Your task to perform on an android device: Turn off the flashlight Image 0: 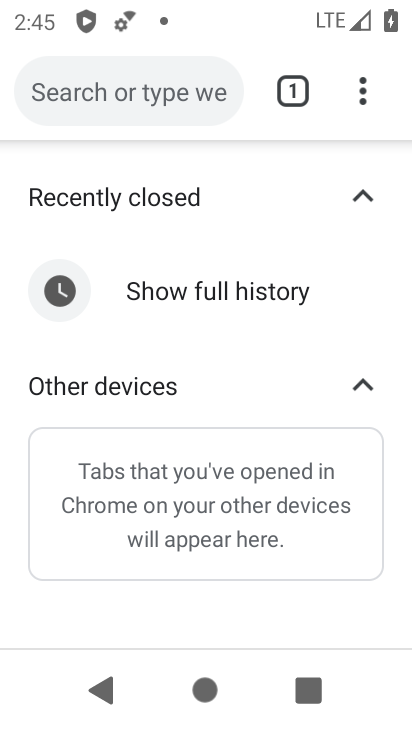
Step 0: press back button
Your task to perform on an android device: Turn off the flashlight Image 1: 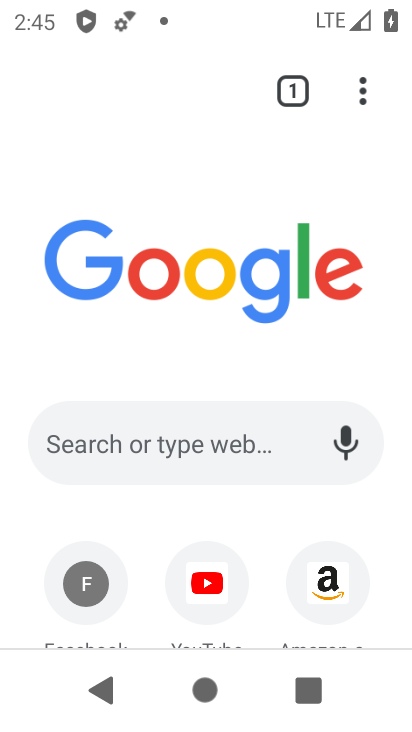
Step 1: press back button
Your task to perform on an android device: Turn off the flashlight Image 2: 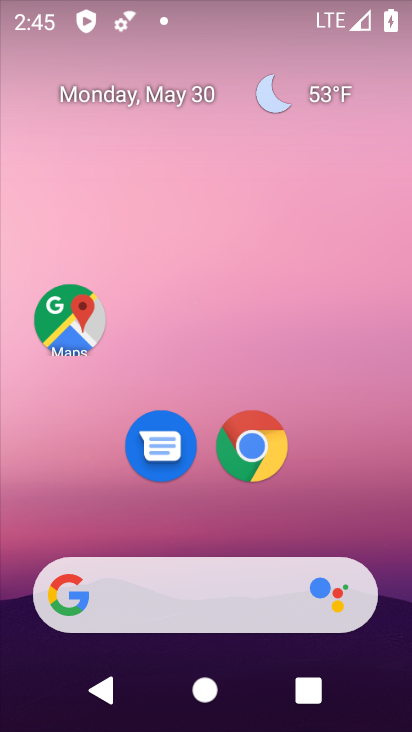
Step 2: drag from (303, 513) to (215, 48)
Your task to perform on an android device: Turn off the flashlight Image 3: 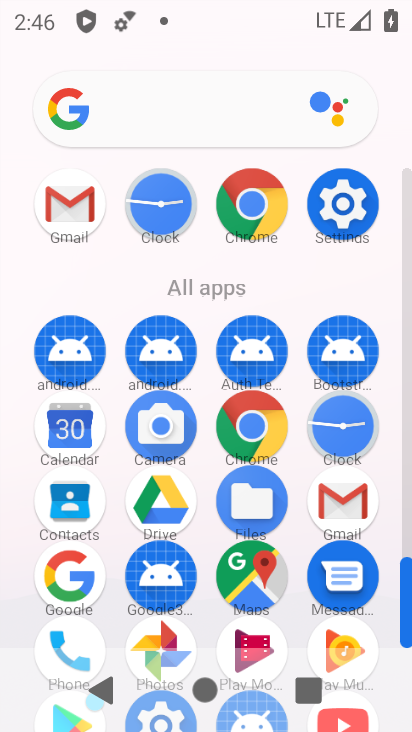
Step 3: click (342, 206)
Your task to perform on an android device: Turn off the flashlight Image 4: 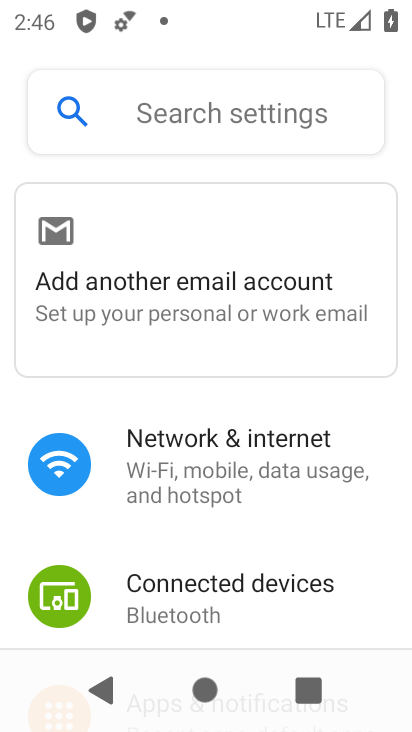
Step 4: drag from (171, 546) to (192, 435)
Your task to perform on an android device: Turn off the flashlight Image 5: 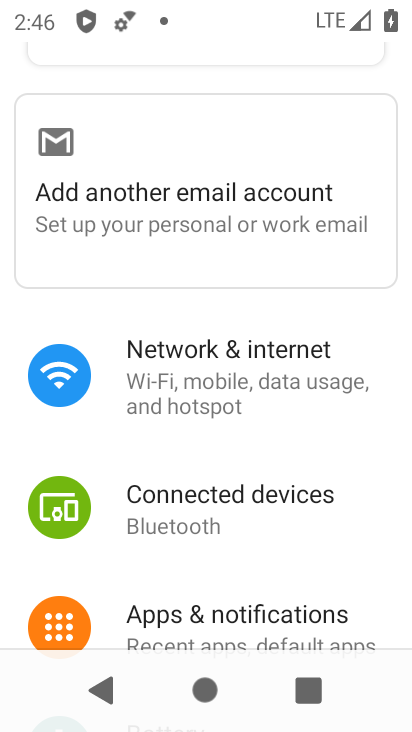
Step 5: drag from (185, 548) to (216, 472)
Your task to perform on an android device: Turn off the flashlight Image 6: 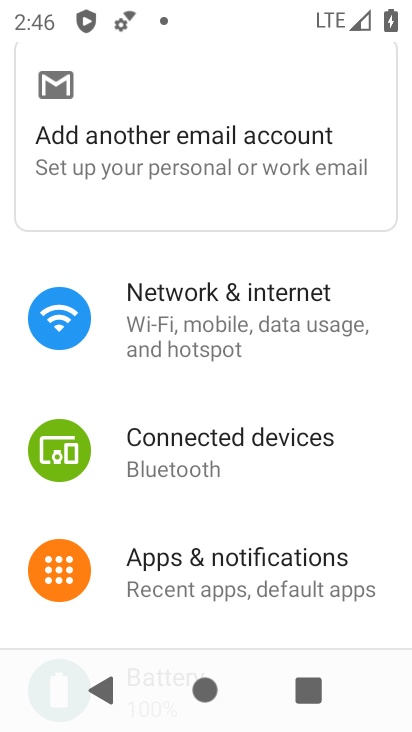
Step 6: drag from (187, 524) to (235, 457)
Your task to perform on an android device: Turn off the flashlight Image 7: 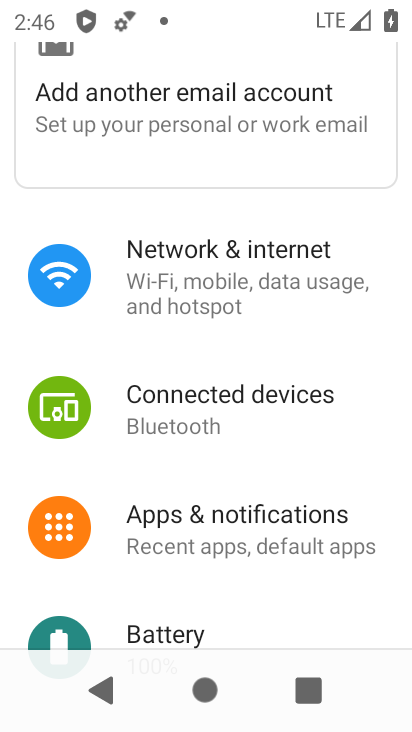
Step 7: drag from (180, 585) to (276, 477)
Your task to perform on an android device: Turn off the flashlight Image 8: 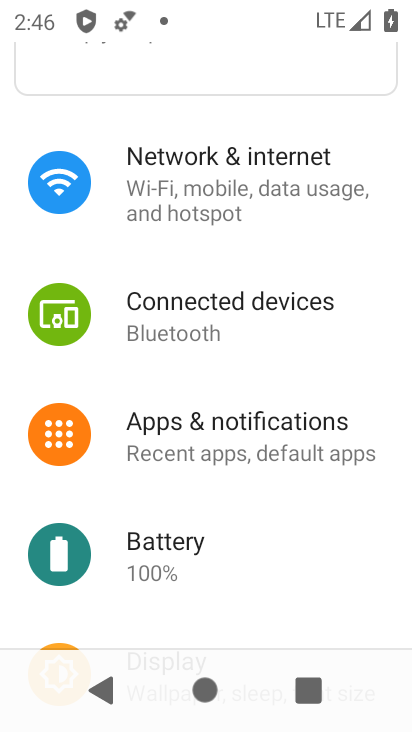
Step 8: drag from (183, 491) to (244, 378)
Your task to perform on an android device: Turn off the flashlight Image 9: 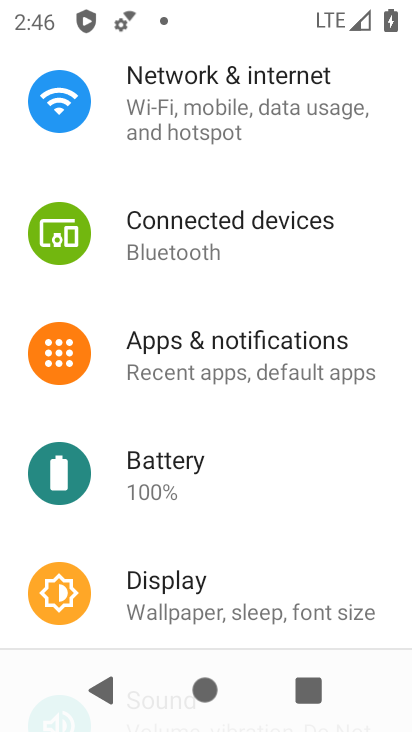
Step 9: drag from (219, 517) to (261, 386)
Your task to perform on an android device: Turn off the flashlight Image 10: 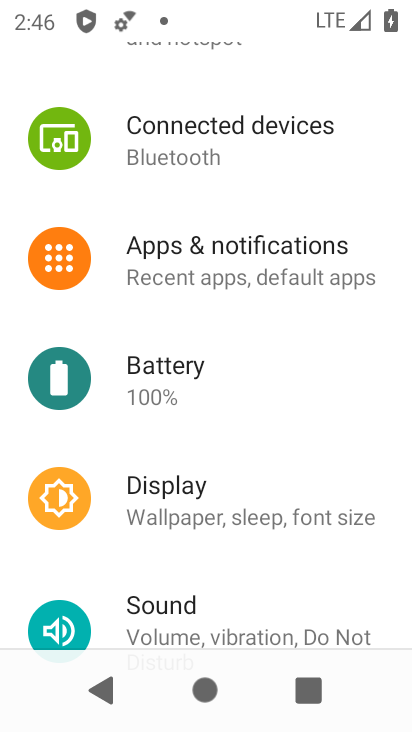
Step 10: click (212, 523)
Your task to perform on an android device: Turn off the flashlight Image 11: 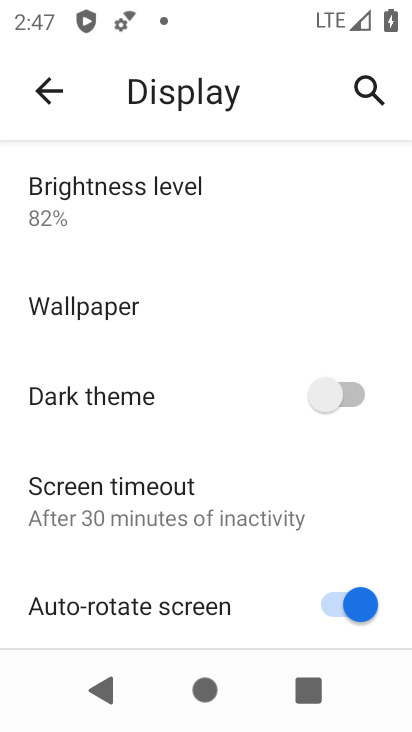
Step 11: drag from (99, 481) to (161, 373)
Your task to perform on an android device: Turn off the flashlight Image 12: 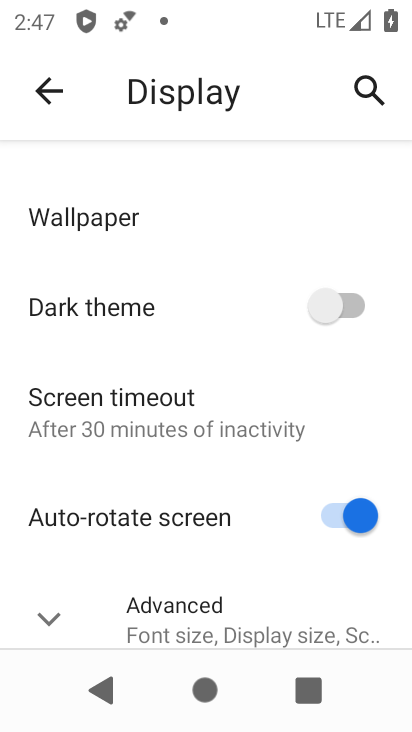
Step 12: click (160, 430)
Your task to perform on an android device: Turn off the flashlight Image 13: 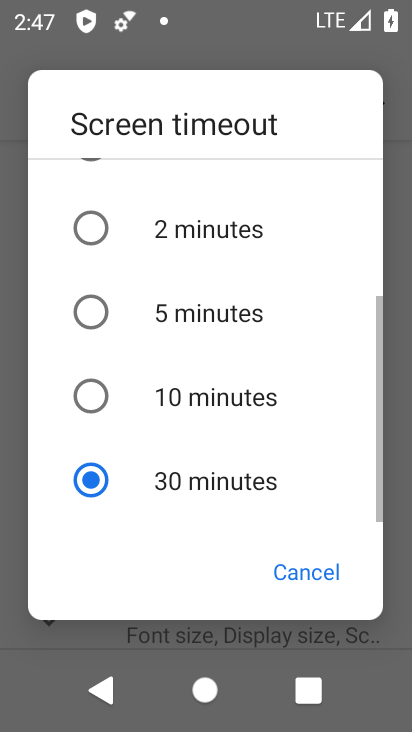
Step 13: drag from (157, 342) to (203, 489)
Your task to perform on an android device: Turn off the flashlight Image 14: 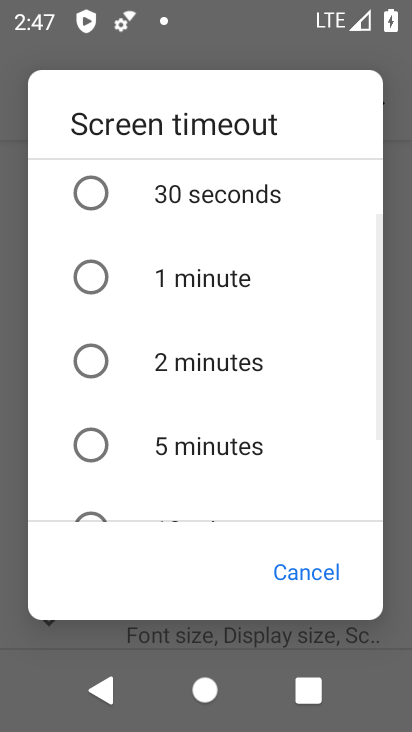
Step 14: drag from (191, 249) to (218, 485)
Your task to perform on an android device: Turn off the flashlight Image 15: 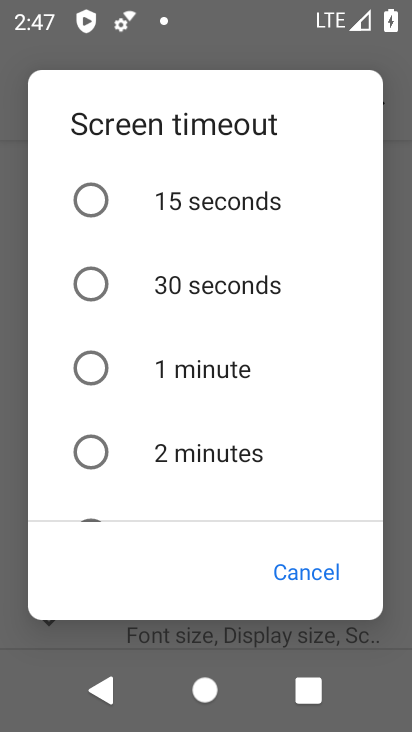
Step 15: click (295, 569)
Your task to perform on an android device: Turn off the flashlight Image 16: 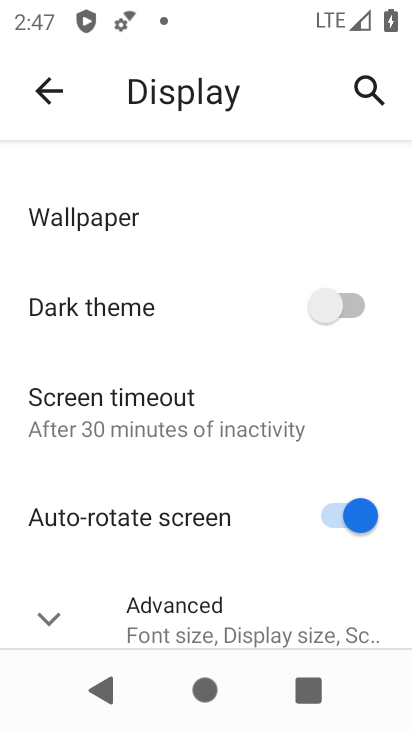
Step 16: drag from (250, 570) to (260, 402)
Your task to perform on an android device: Turn off the flashlight Image 17: 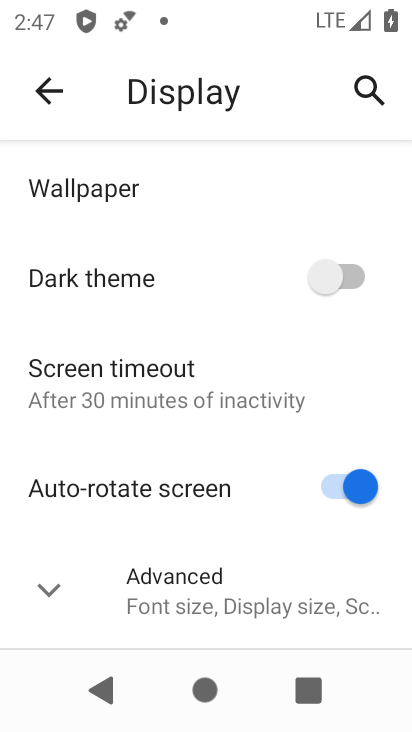
Step 17: click (241, 606)
Your task to perform on an android device: Turn off the flashlight Image 18: 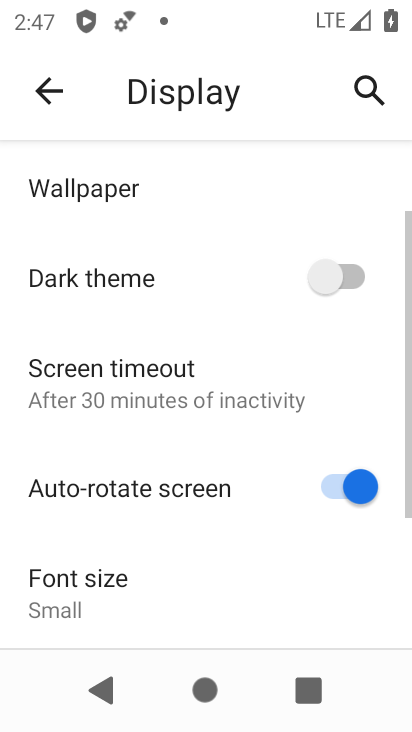
Step 18: task complete